Your task to perform on an android device: search for starred emails in the gmail app Image 0: 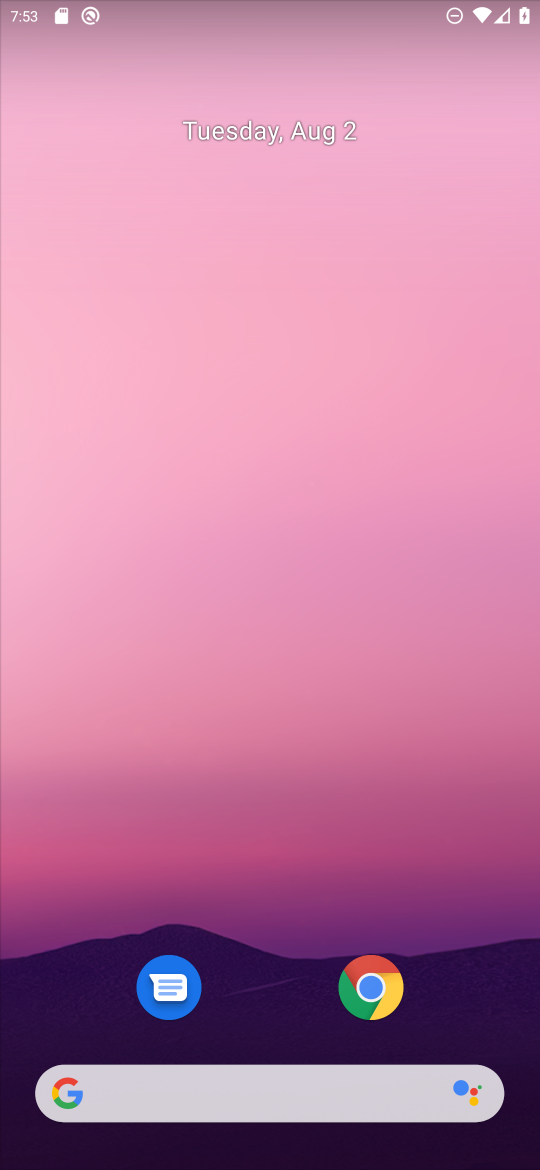
Step 0: drag from (511, 1034) to (462, 275)
Your task to perform on an android device: search for starred emails in the gmail app Image 1: 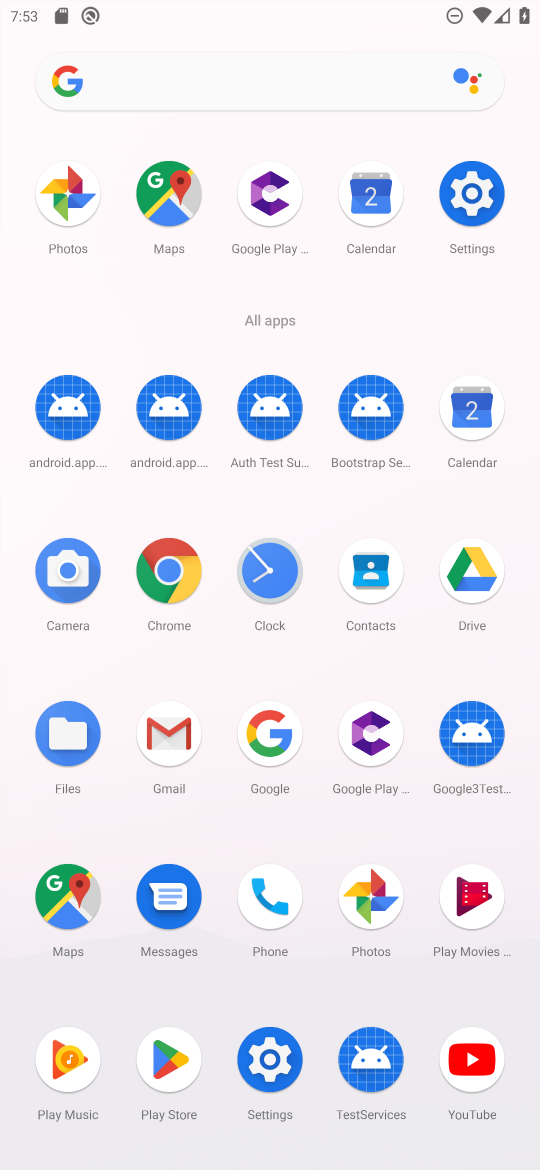
Step 1: click (167, 731)
Your task to perform on an android device: search for starred emails in the gmail app Image 2: 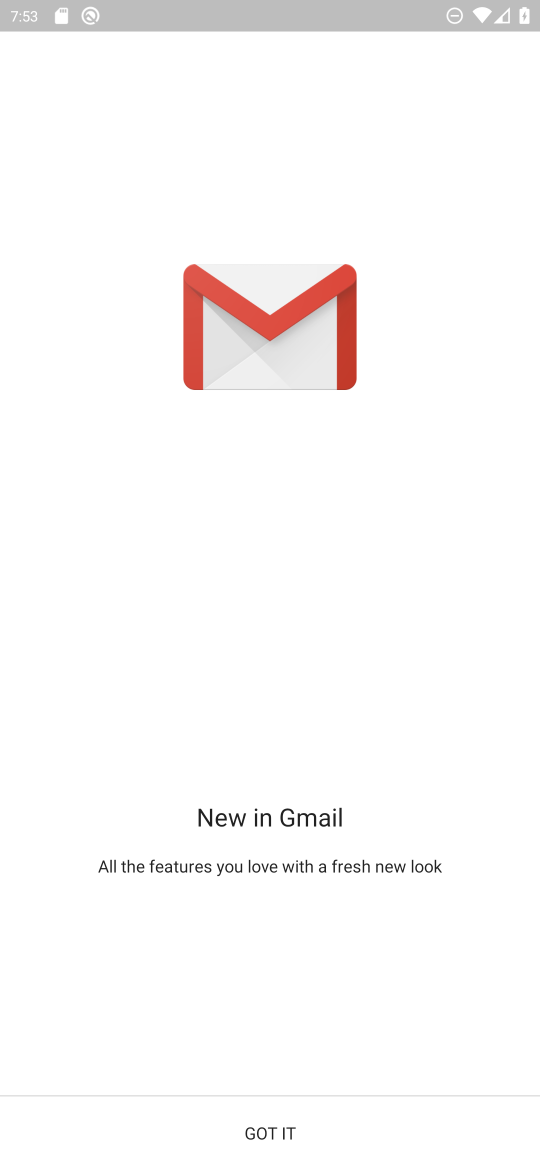
Step 2: click (258, 1122)
Your task to perform on an android device: search for starred emails in the gmail app Image 3: 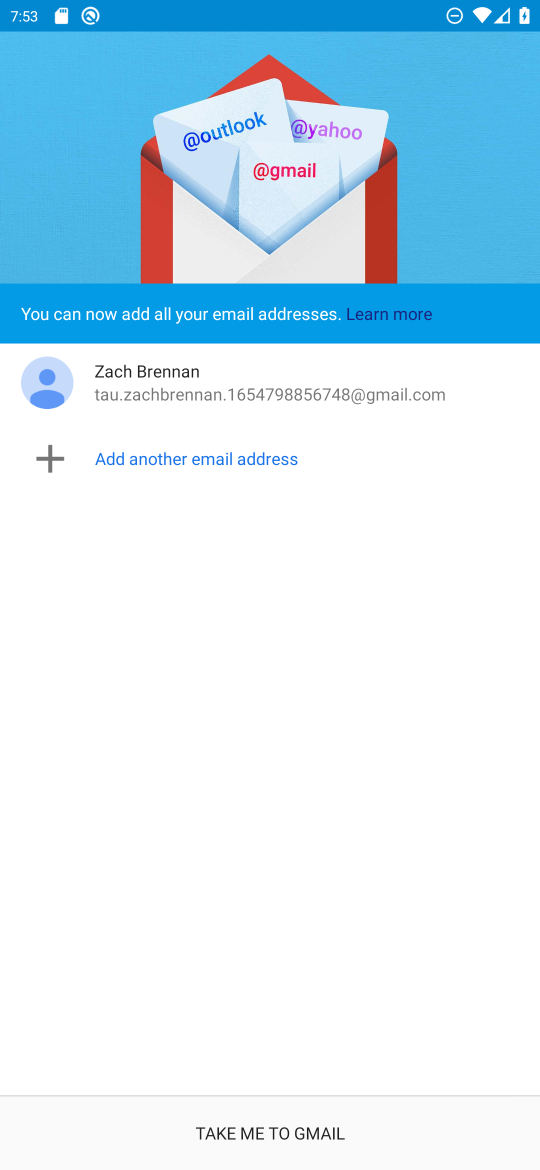
Step 3: click (258, 1122)
Your task to perform on an android device: search for starred emails in the gmail app Image 4: 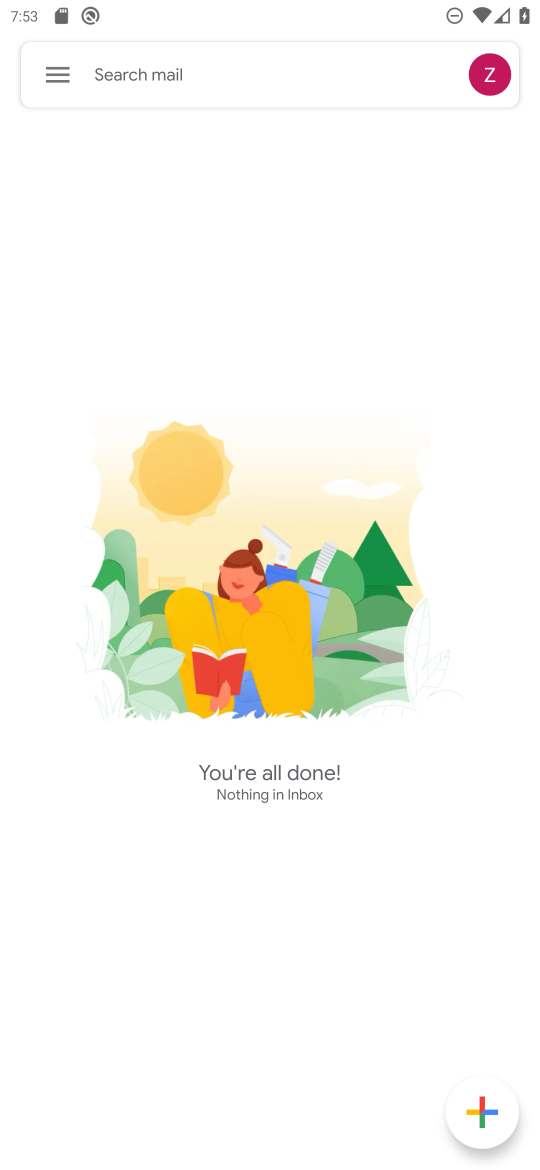
Step 4: click (60, 76)
Your task to perform on an android device: search for starred emails in the gmail app Image 5: 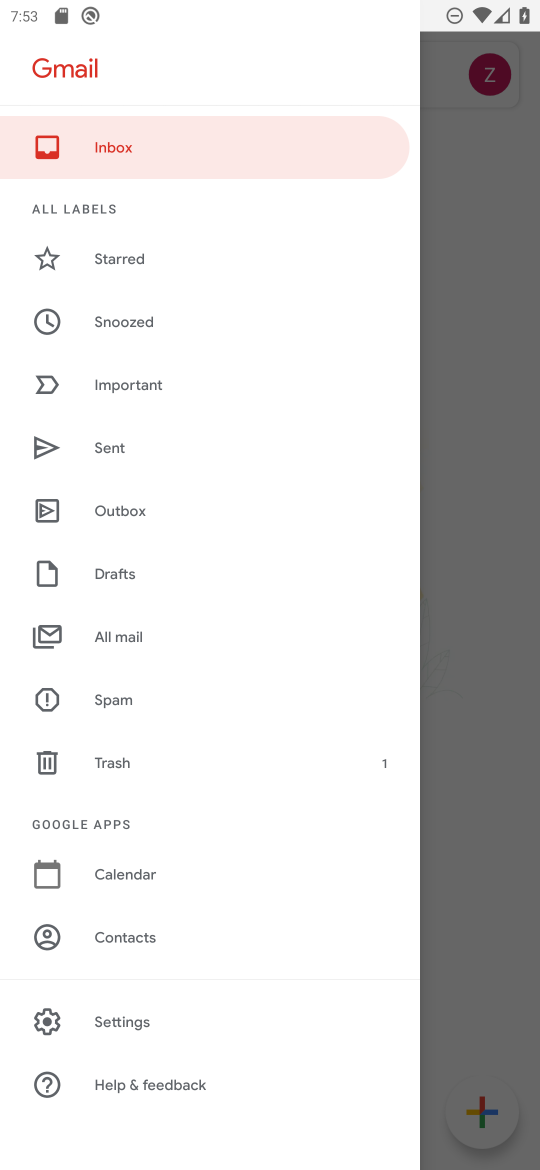
Step 5: click (117, 267)
Your task to perform on an android device: search for starred emails in the gmail app Image 6: 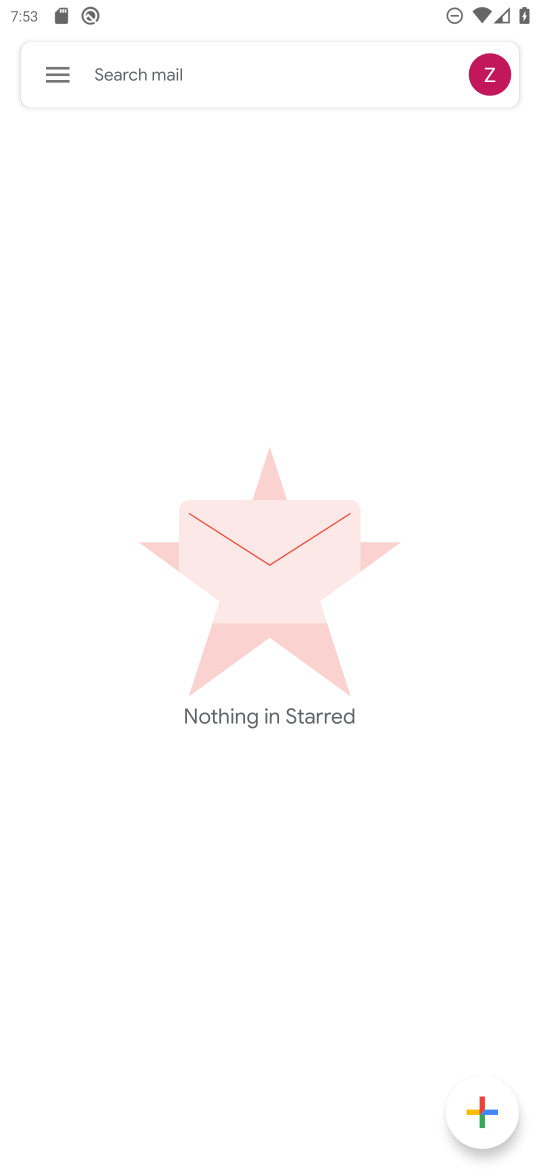
Step 6: task complete